Your task to perform on an android device: check storage Image 0: 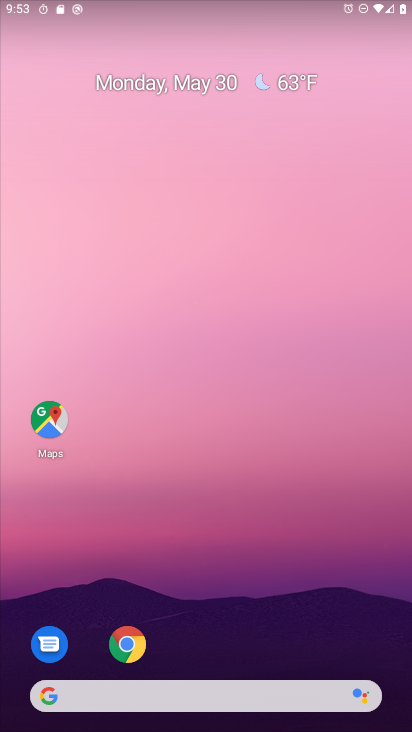
Step 0: drag from (199, 620) to (209, 99)
Your task to perform on an android device: check storage Image 1: 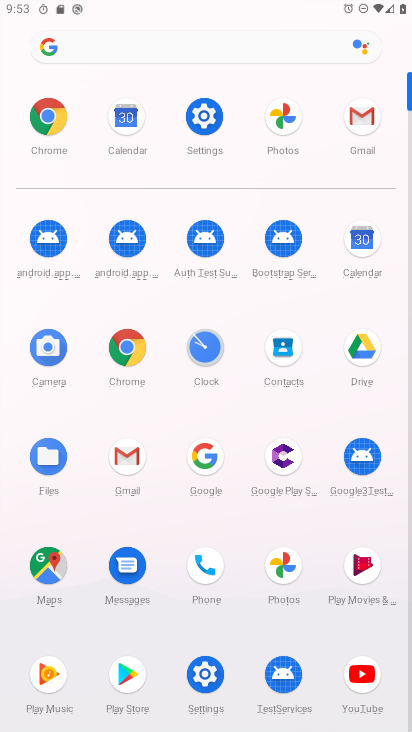
Step 1: click (204, 115)
Your task to perform on an android device: check storage Image 2: 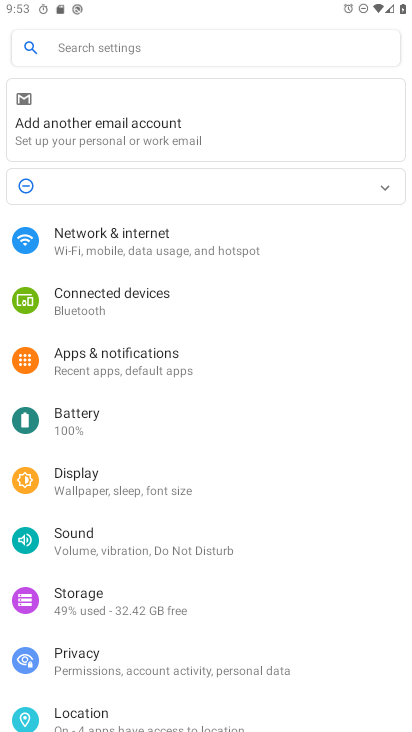
Step 2: click (89, 603)
Your task to perform on an android device: check storage Image 3: 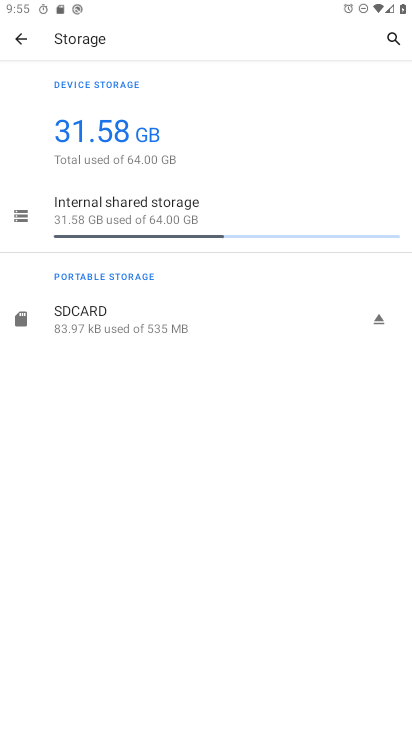
Step 3: task complete